Your task to perform on an android device: turn off data saver in the chrome app Image 0: 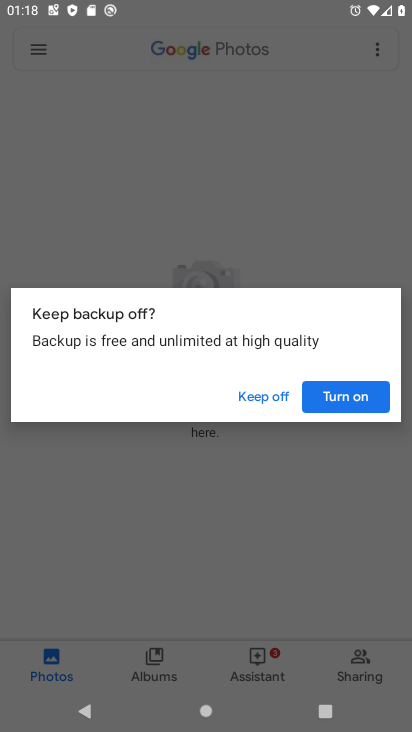
Step 0: press home button
Your task to perform on an android device: turn off data saver in the chrome app Image 1: 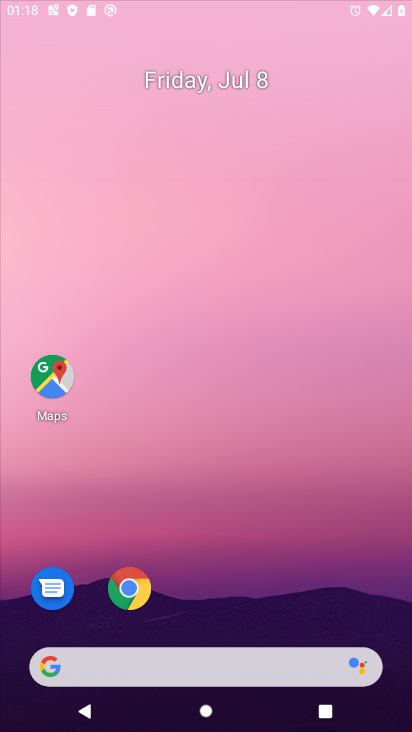
Step 1: drag from (204, 599) to (159, 117)
Your task to perform on an android device: turn off data saver in the chrome app Image 2: 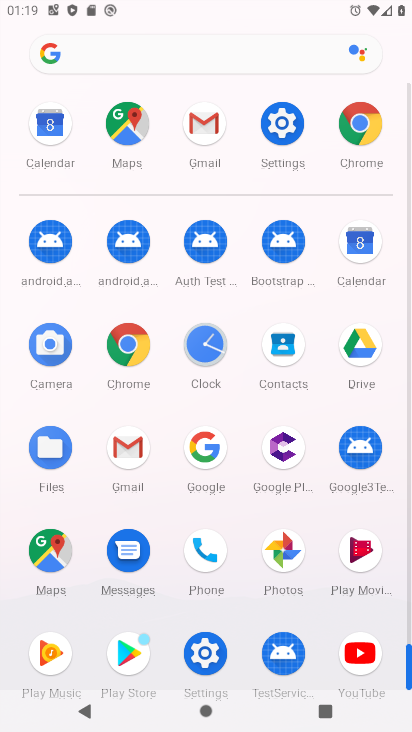
Step 2: click (121, 339)
Your task to perform on an android device: turn off data saver in the chrome app Image 3: 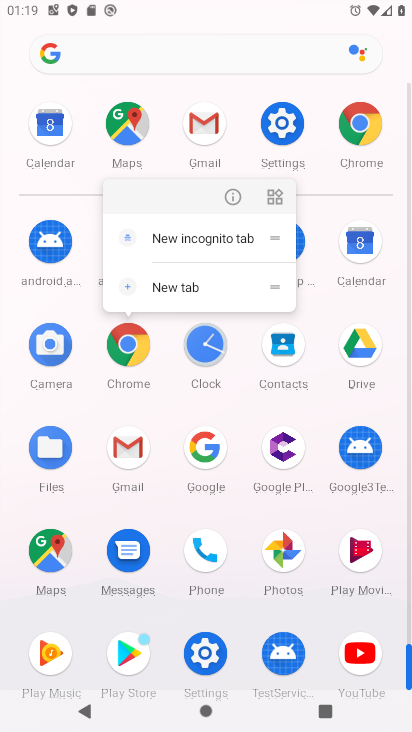
Step 3: click (232, 196)
Your task to perform on an android device: turn off data saver in the chrome app Image 4: 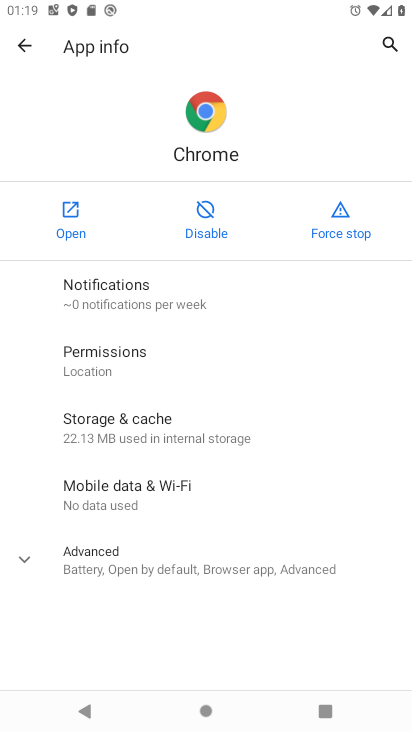
Step 4: click (64, 216)
Your task to perform on an android device: turn off data saver in the chrome app Image 5: 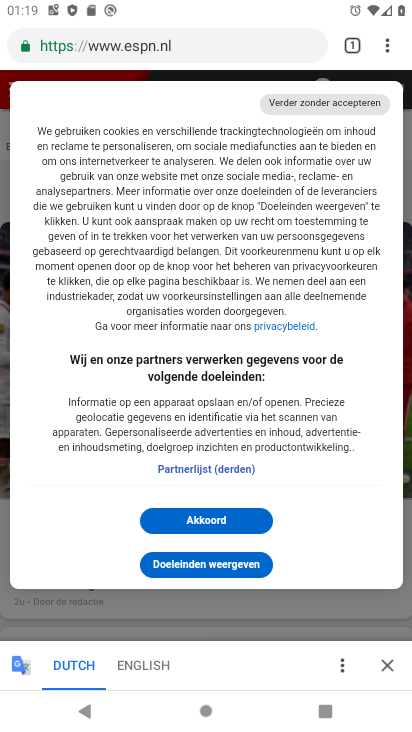
Step 5: click (385, 42)
Your task to perform on an android device: turn off data saver in the chrome app Image 6: 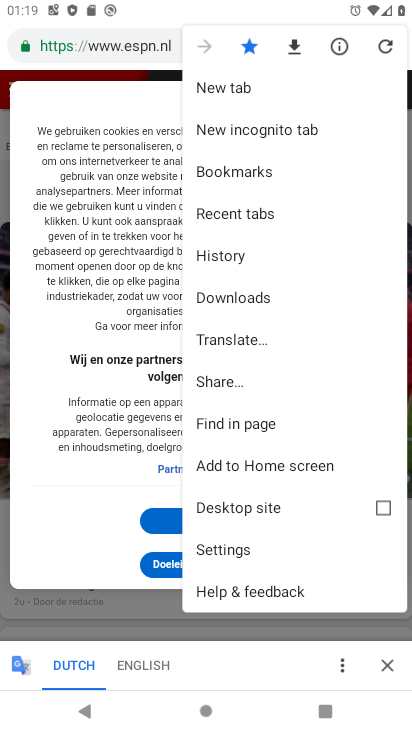
Step 6: click (240, 541)
Your task to perform on an android device: turn off data saver in the chrome app Image 7: 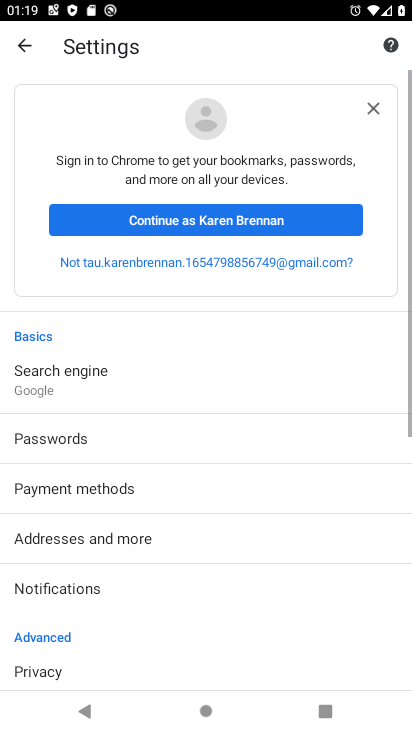
Step 7: drag from (246, 505) to (254, 221)
Your task to perform on an android device: turn off data saver in the chrome app Image 8: 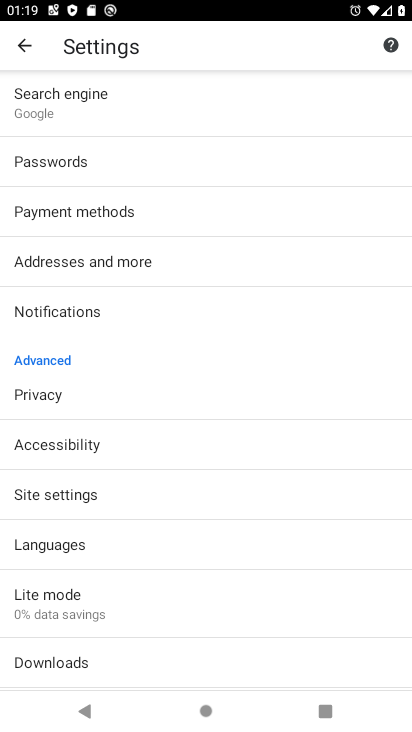
Step 8: click (66, 601)
Your task to perform on an android device: turn off data saver in the chrome app Image 9: 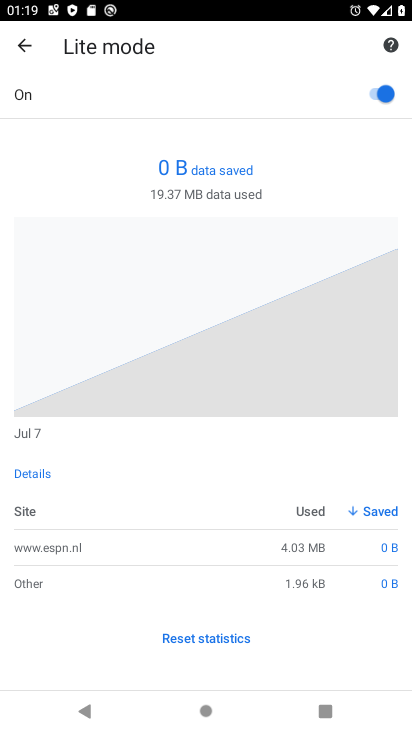
Step 9: click (383, 92)
Your task to perform on an android device: turn off data saver in the chrome app Image 10: 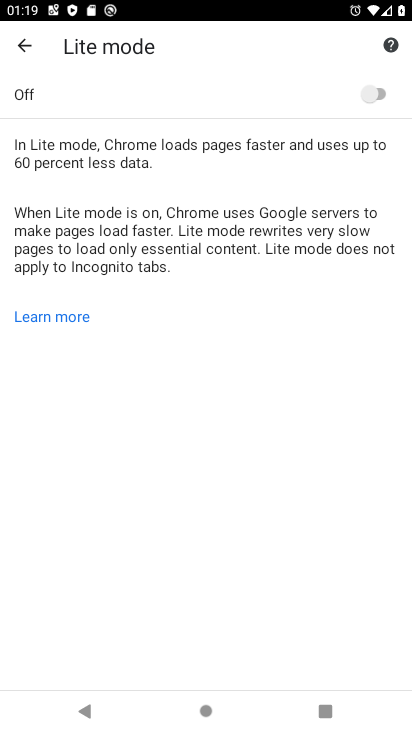
Step 10: task complete